Your task to perform on an android device: Open Youtube and go to "Your channel" Image 0: 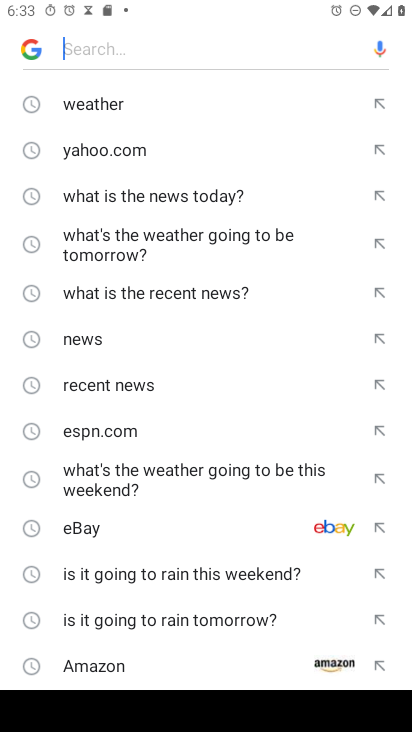
Step 0: press home button
Your task to perform on an android device: Open Youtube and go to "Your channel" Image 1: 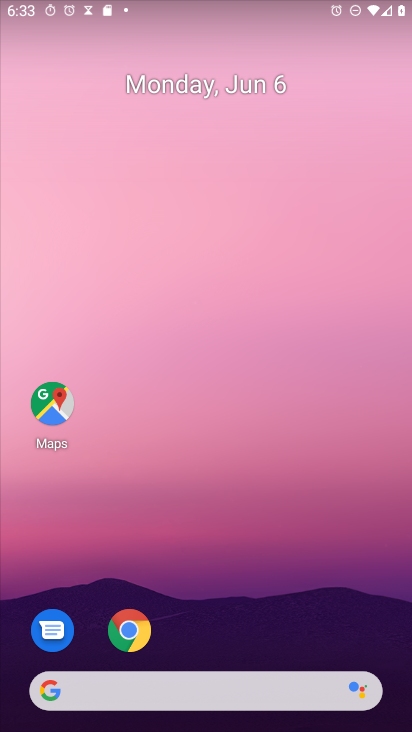
Step 1: drag from (129, 56) to (149, 20)
Your task to perform on an android device: Open Youtube and go to "Your channel" Image 2: 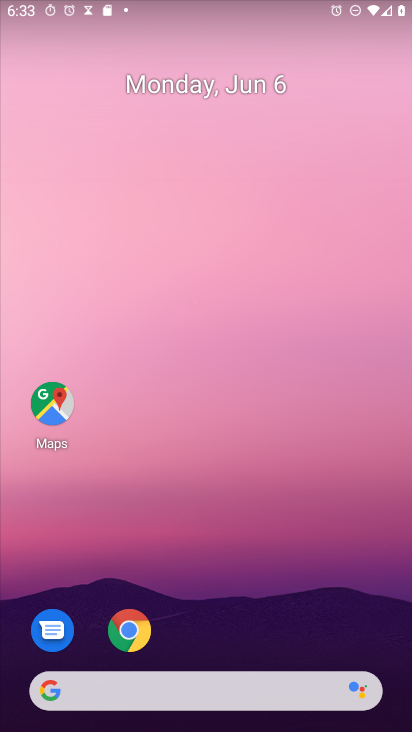
Step 2: drag from (211, 338) to (123, 53)
Your task to perform on an android device: Open Youtube and go to "Your channel" Image 3: 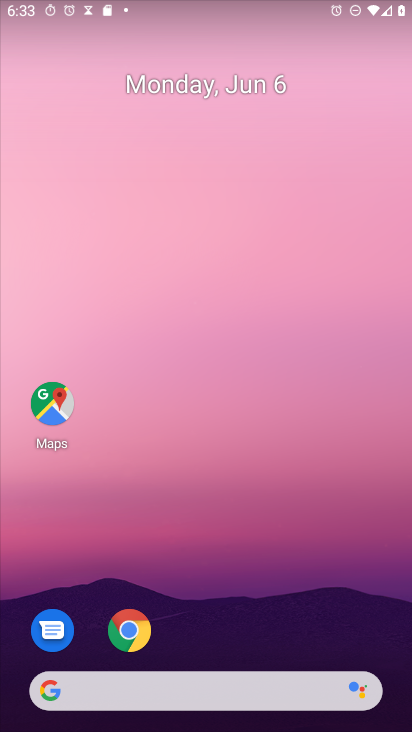
Step 3: drag from (234, 648) to (98, 2)
Your task to perform on an android device: Open Youtube and go to "Your channel" Image 4: 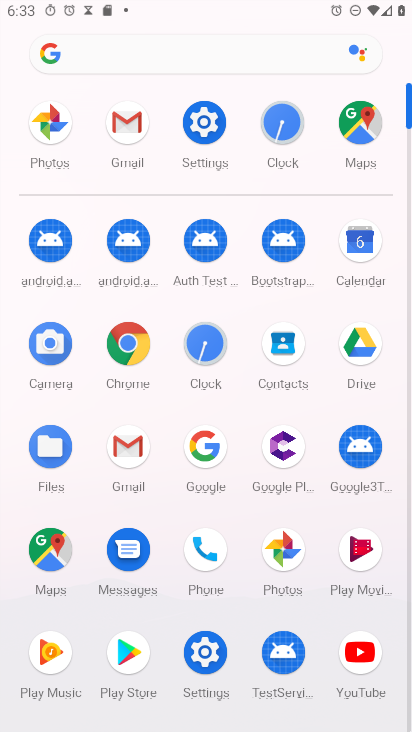
Step 4: click (367, 666)
Your task to perform on an android device: Open Youtube and go to "Your channel" Image 5: 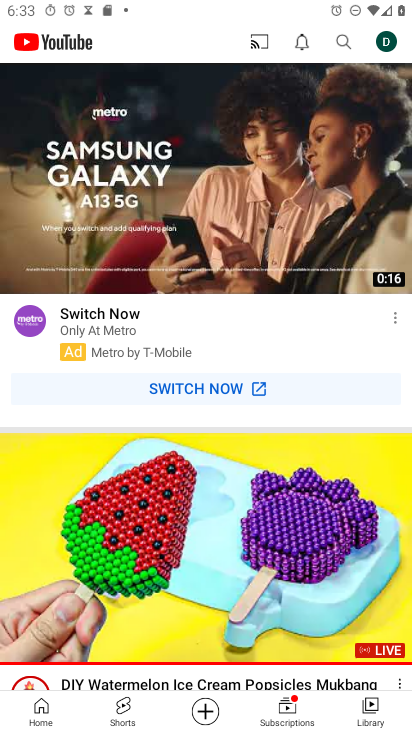
Step 5: click (385, 38)
Your task to perform on an android device: Open Youtube and go to "Your channel" Image 6: 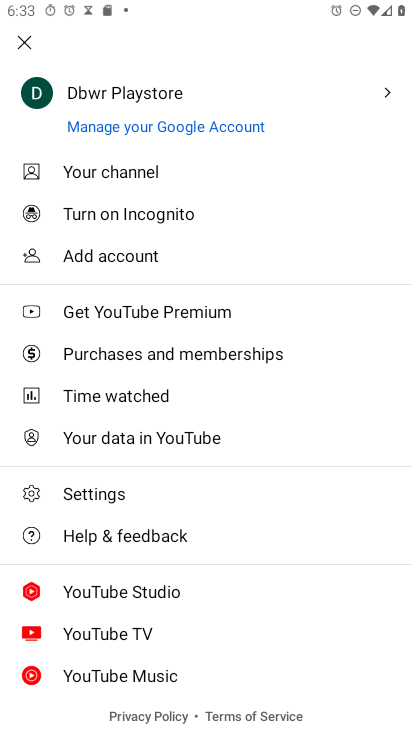
Step 6: click (159, 161)
Your task to perform on an android device: Open Youtube and go to "Your channel" Image 7: 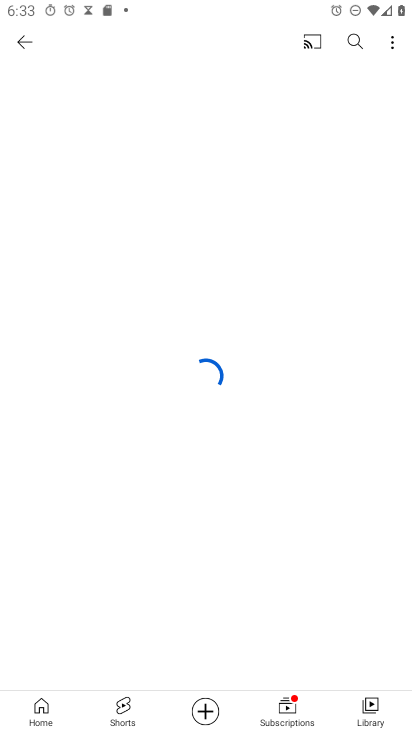
Step 7: task complete